Your task to perform on an android device: Empty the shopping cart on costco.com. Add acer predator to the cart on costco.com, then select checkout. Image 0: 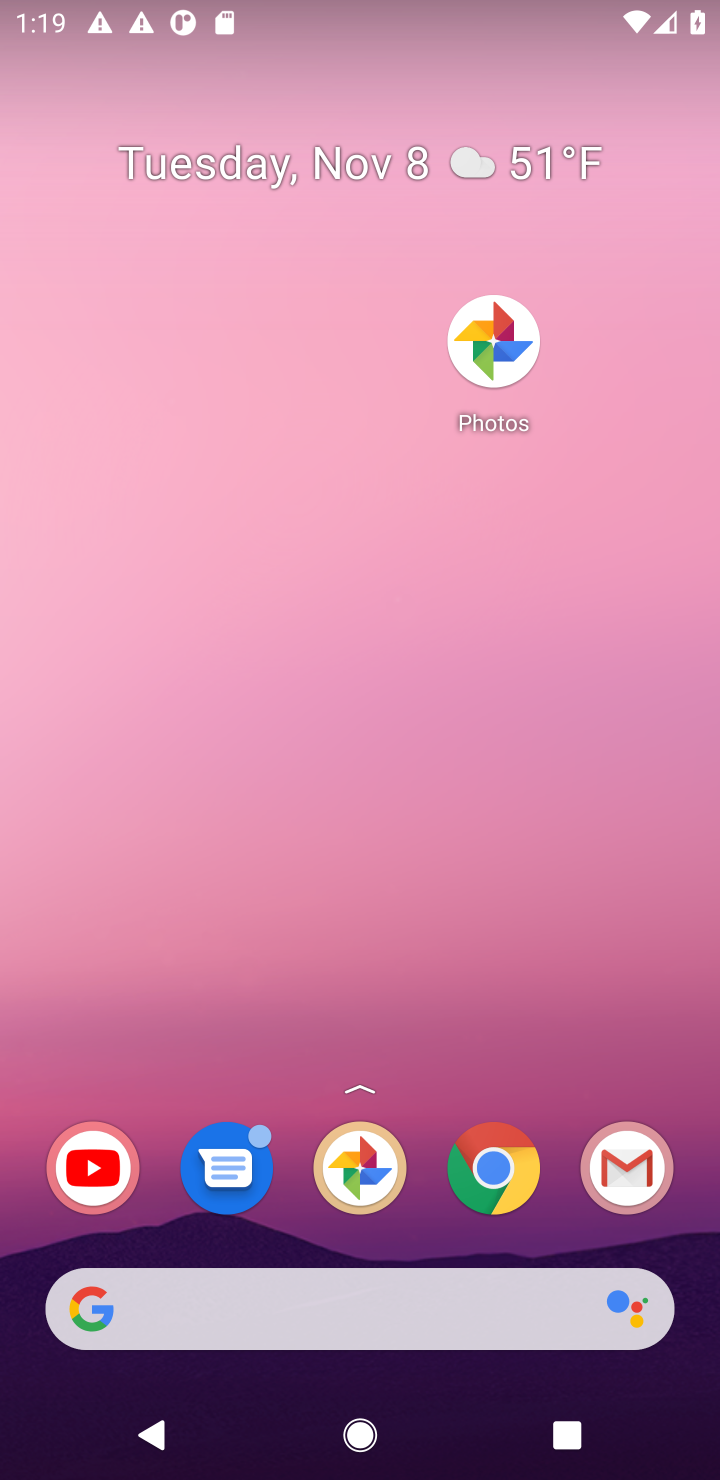
Step 0: drag from (322, 960) to (640, 23)
Your task to perform on an android device: Empty the shopping cart on costco.com. Add acer predator to the cart on costco.com, then select checkout. Image 1: 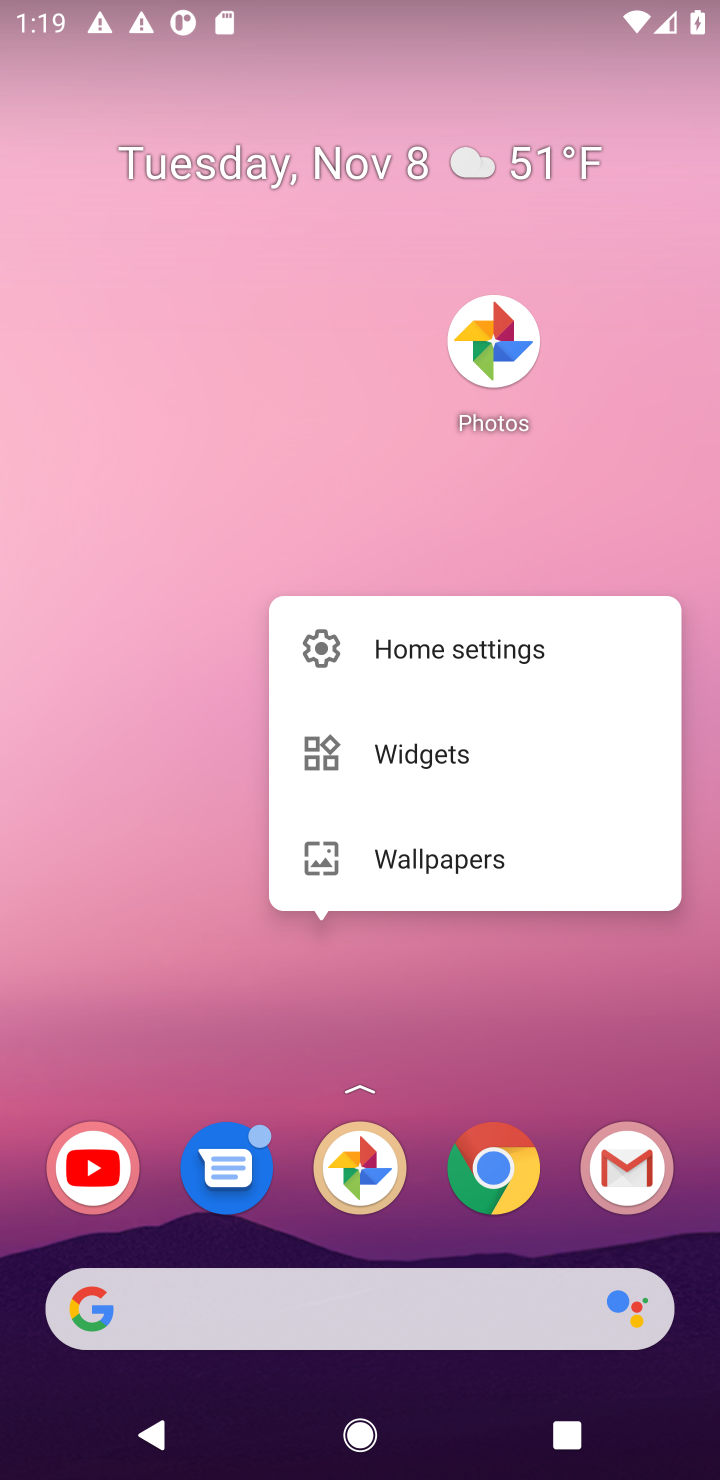
Step 1: click (286, 482)
Your task to perform on an android device: Empty the shopping cart on costco.com. Add acer predator to the cart on costco.com, then select checkout. Image 2: 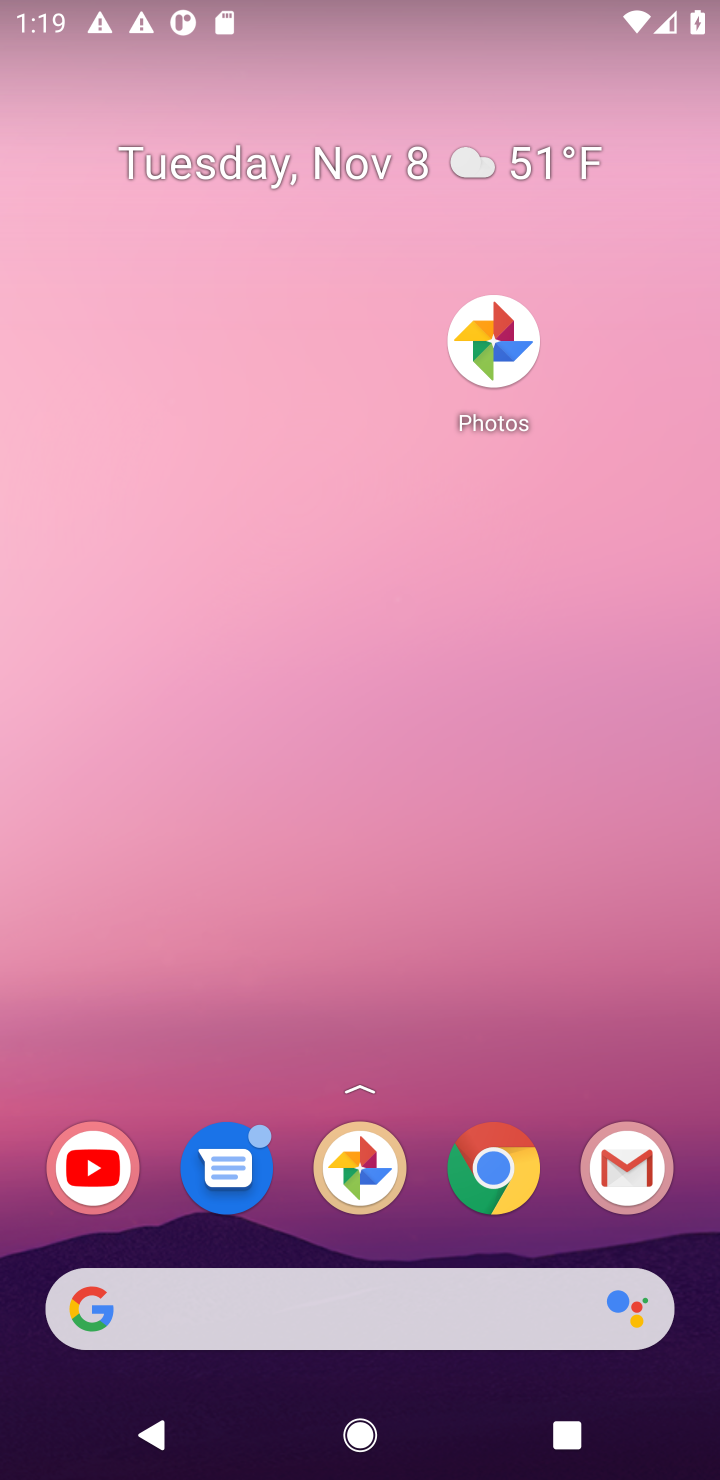
Step 2: drag from (375, 800) to (408, 227)
Your task to perform on an android device: Empty the shopping cart on costco.com. Add acer predator to the cart on costco.com, then select checkout. Image 3: 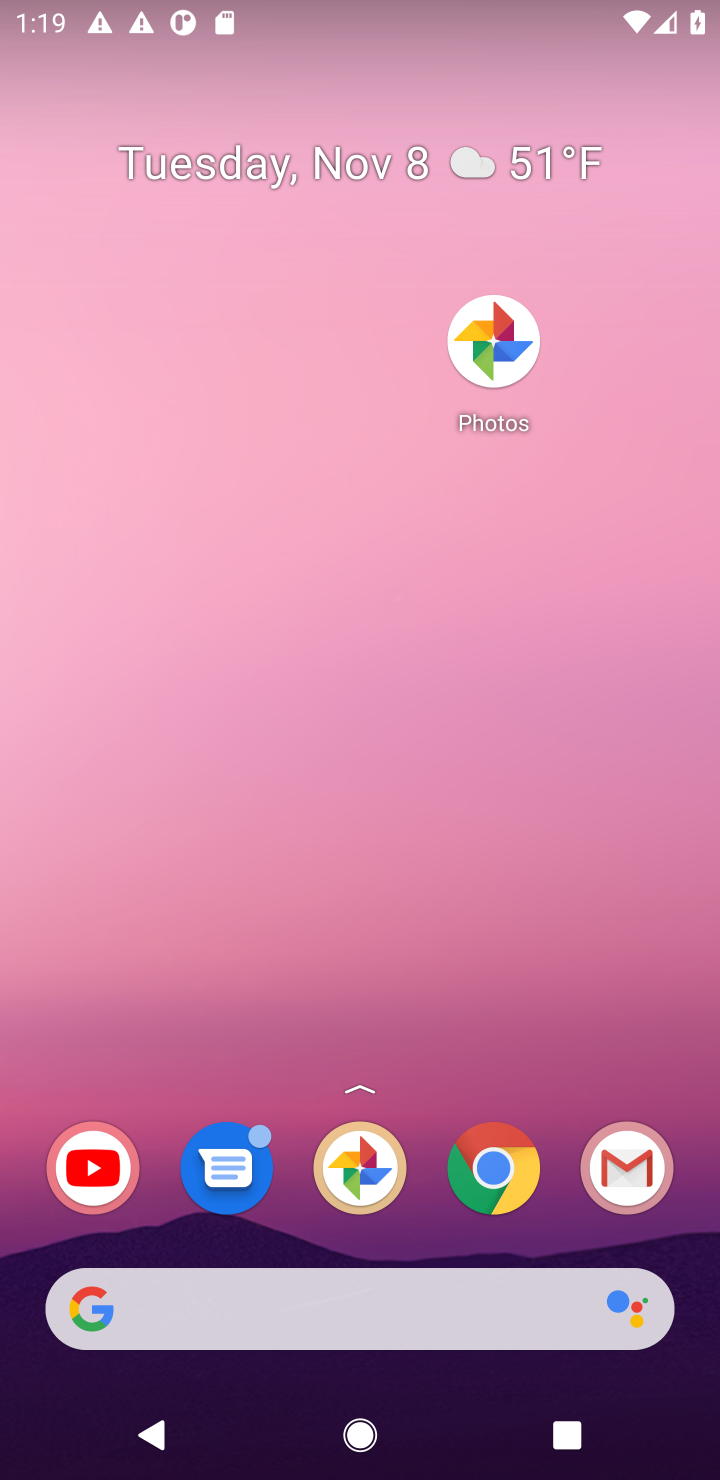
Step 3: drag from (458, 1021) to (522, 647)
Your task to perform on an android device: Empty the shopping cart on costco.com. Add acer predator to the cart on costco.com, then select checkout. Image 4: 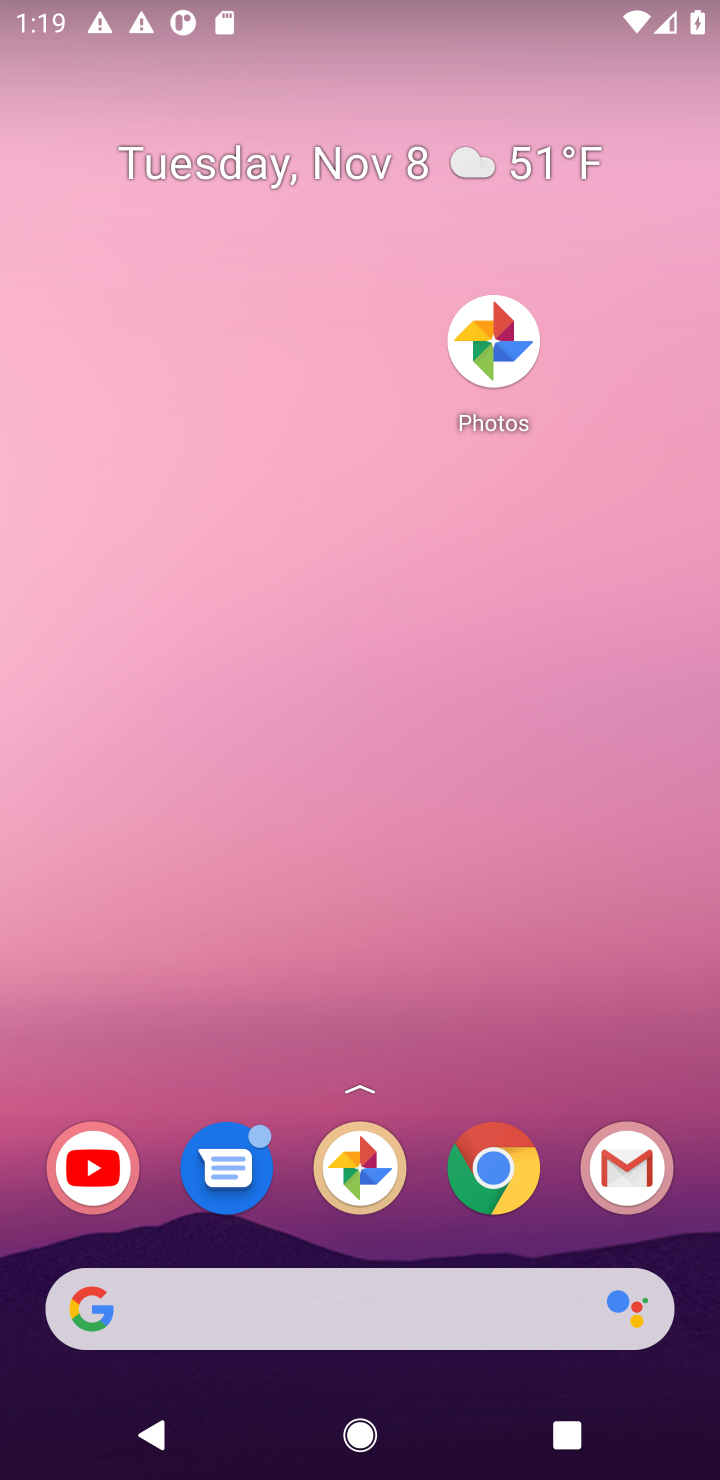
Step 4: drag from (373, 1163) to (492, 198)
Your task to perform on an android device: Empty the shopping cart on costco.com. Add acer predator to the cart on costco.com, then select checkout. Image 5: 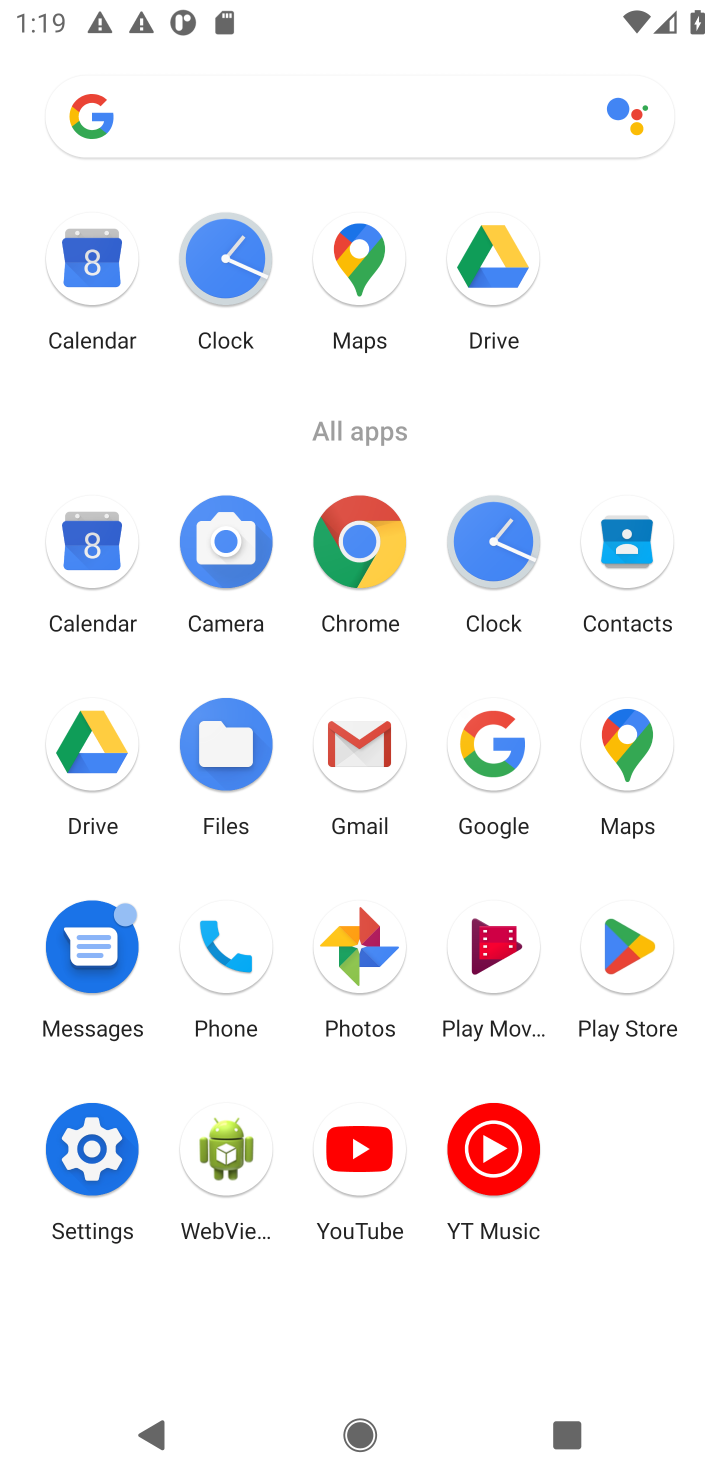
Step 5: click (362, 541)
Your task to perform on an android device: Empty the shopping cart on costco.com. Add acer predator to the cart on costco.com, then select checkout. Image 6: 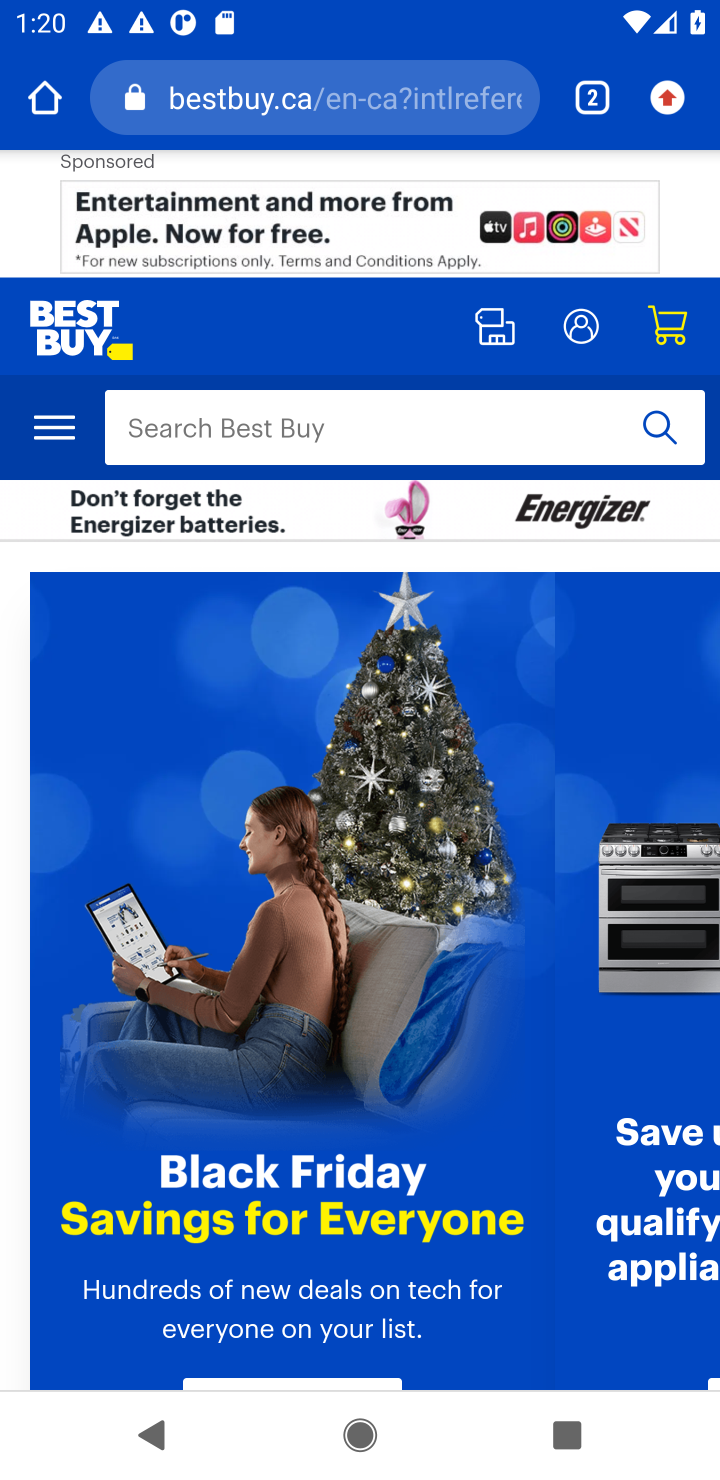
Step 6: click (313, 404)
Your task to perform on an android device: Empty the shopping cart on costco.com. Add acer predator to the cart on costco.com, then select checkout. Image 7: 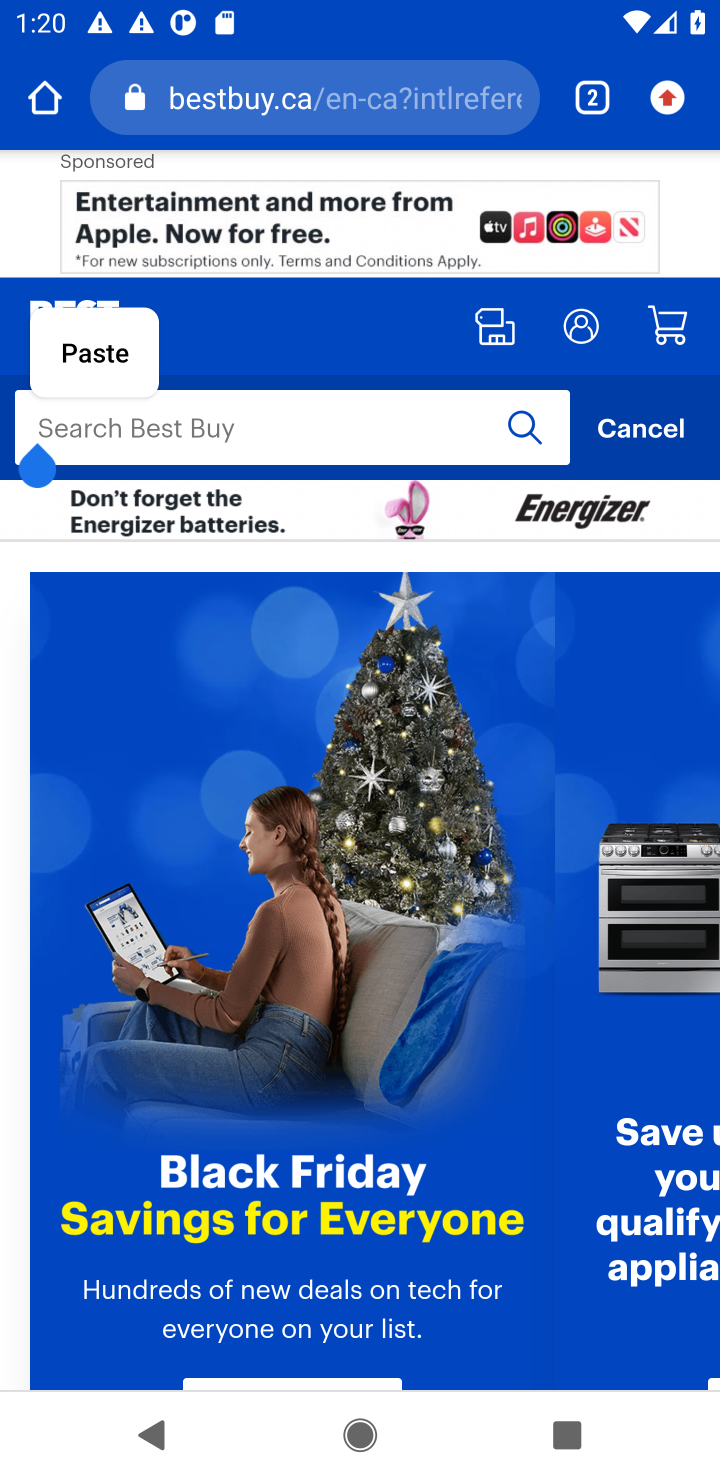
Step 7: click (667, 335)
Your task to perform on an android device: Empty the shopping cart on costco.com. Add acer predator to the cart on costco.com, then select checkout. Image 8: 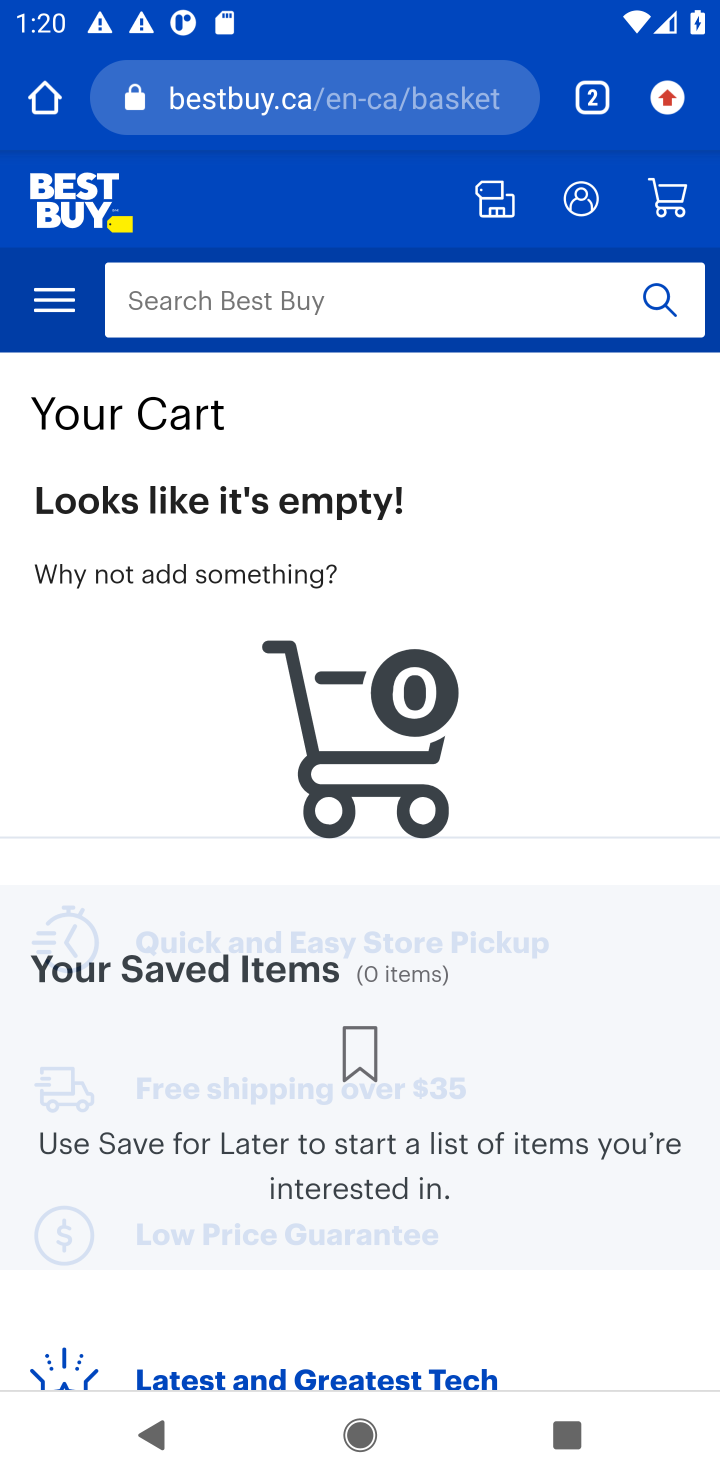
Step 8: click (357, 281)
Your task to perform on an android device: Empty the shopping cart on costco.com. Add acer predator to the cart on costco.com, then select checkout. Image 9: 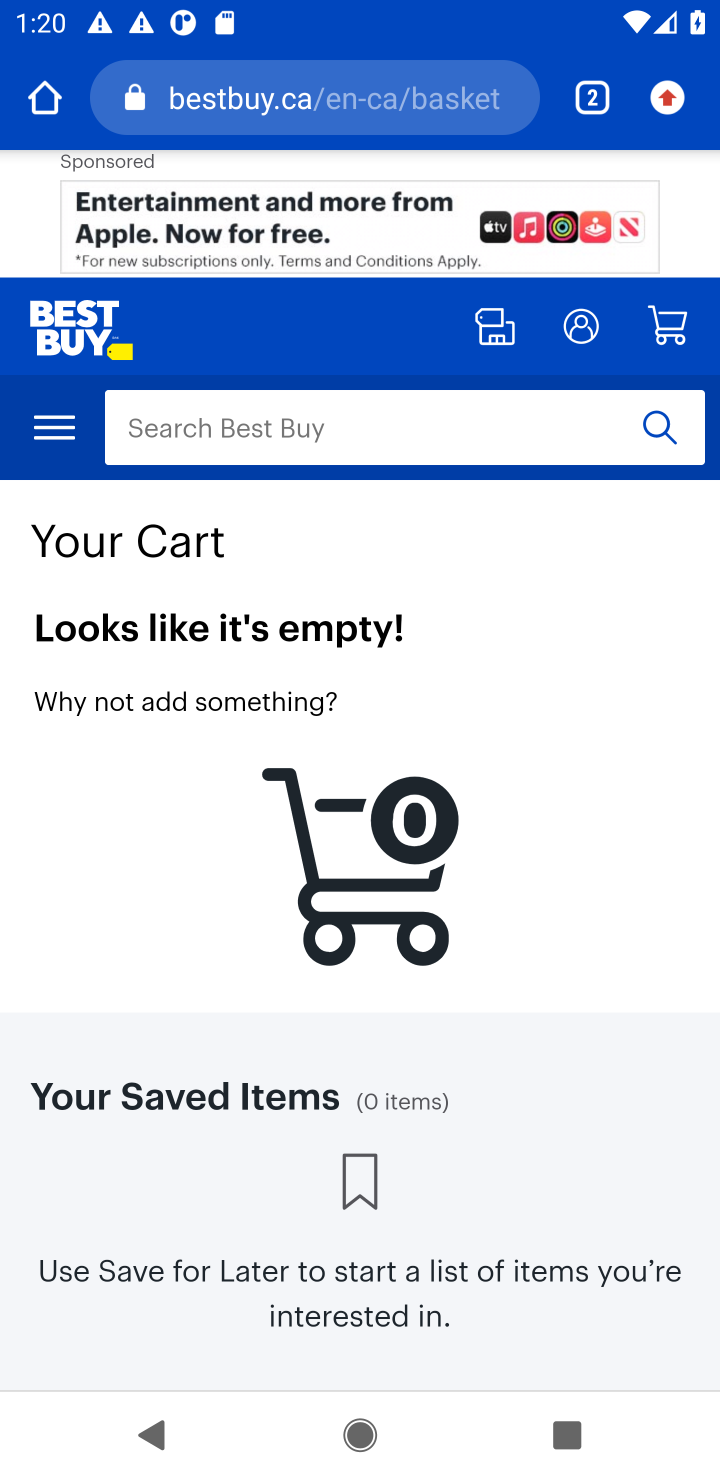
Step 9: click (286, 449)
Your task to perform on an android device: Empty the shopping cart on costco.com. Add acer predator to the cart on costco.com, then select checkout. Image 10: 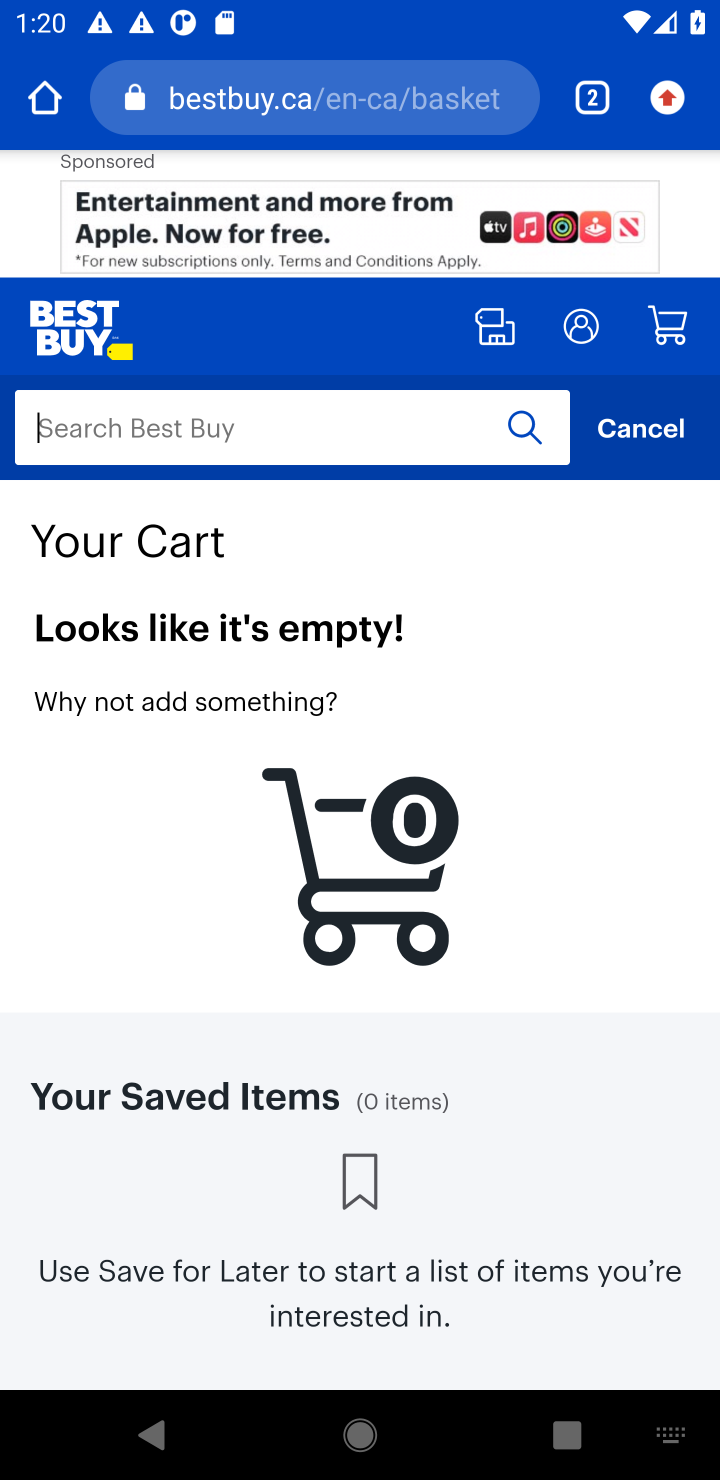
Step 10: type "acer predator"
Your task to perform on an android device: Empty the shopping cart on costco.com. Add acer predator to the cart on costco.com, then select checkout. Image 11: 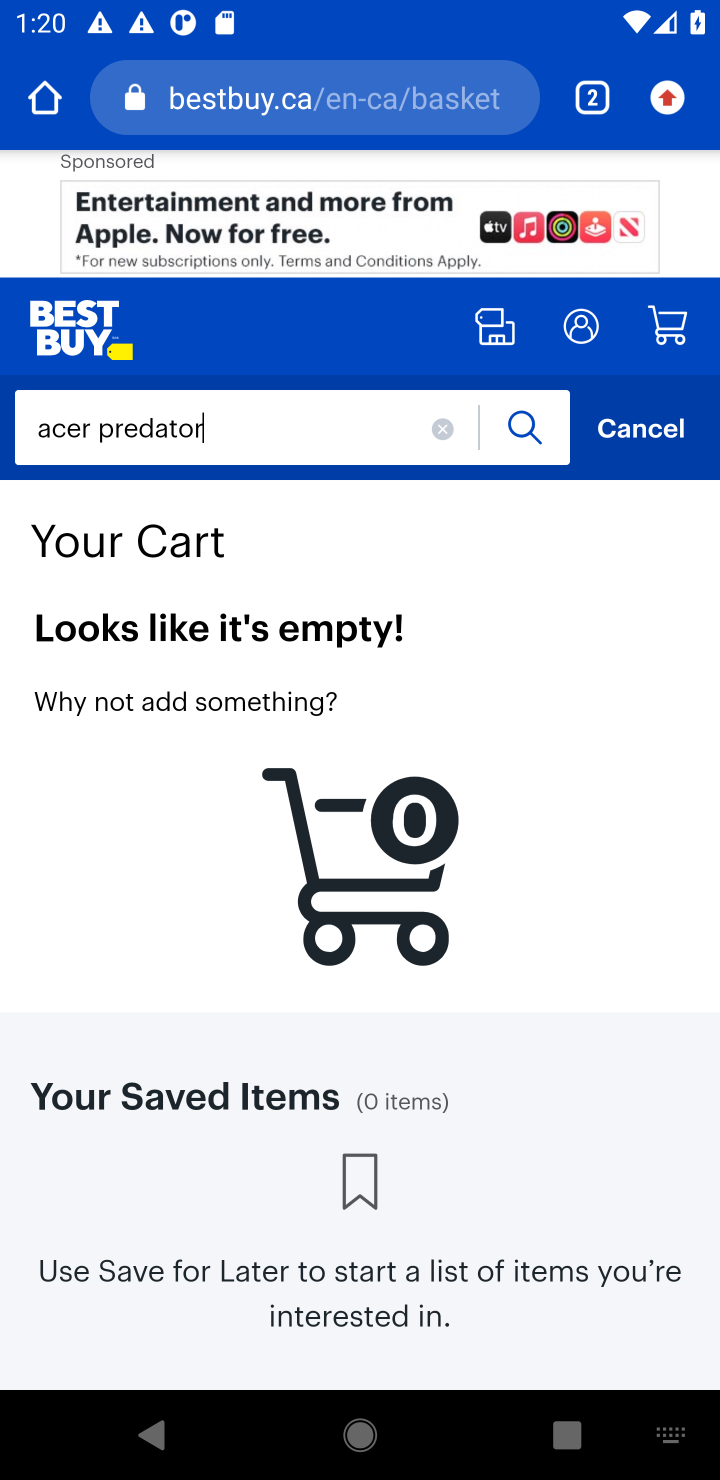
Step 11: press enter
Your task to perform on an android device: Empty the shopping cart on costco.com. Add acer predator to the cart on costco.com, then select checkout. Image 12: 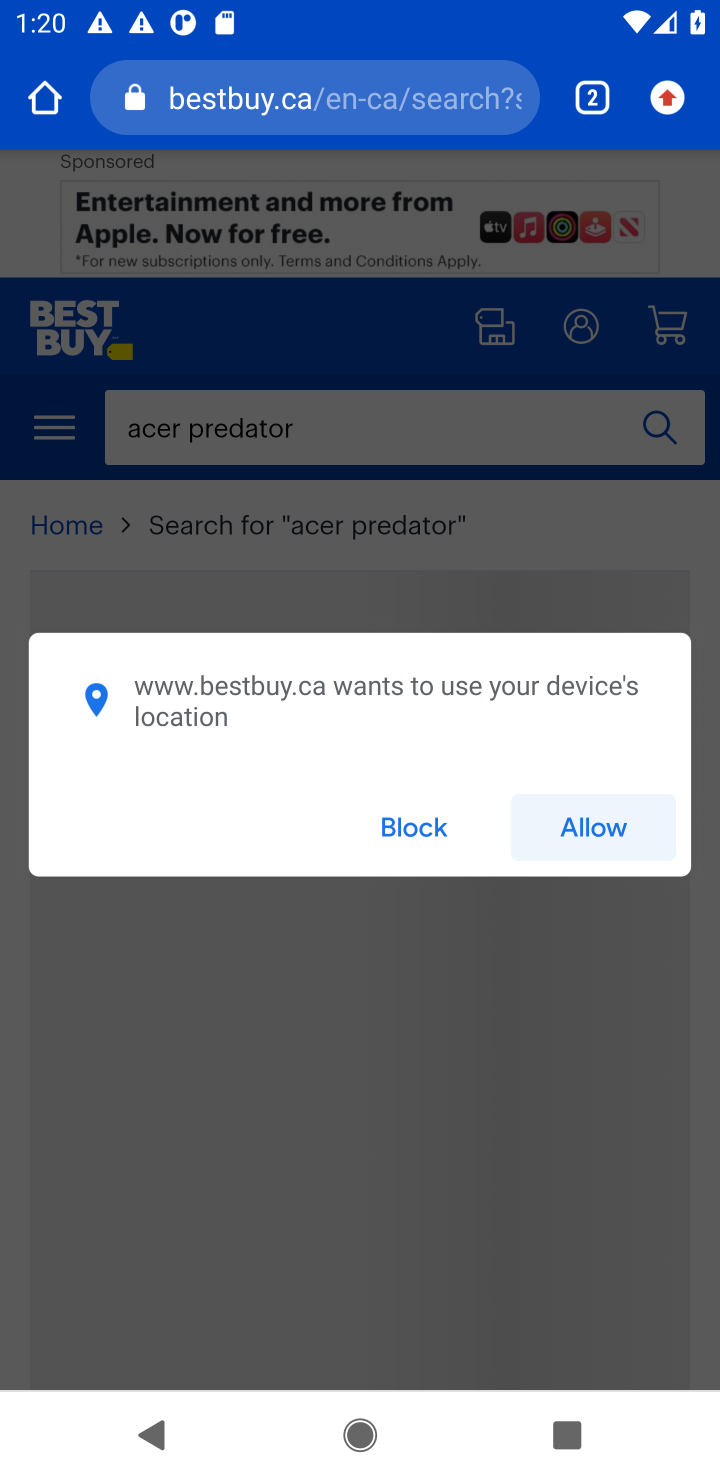
Step 12: click (569, 836)
Your task to perform on an android device: Empty the shopping cart on costco.com. Add acer predator to the cart on costco.com, then select checkout. Image 13: 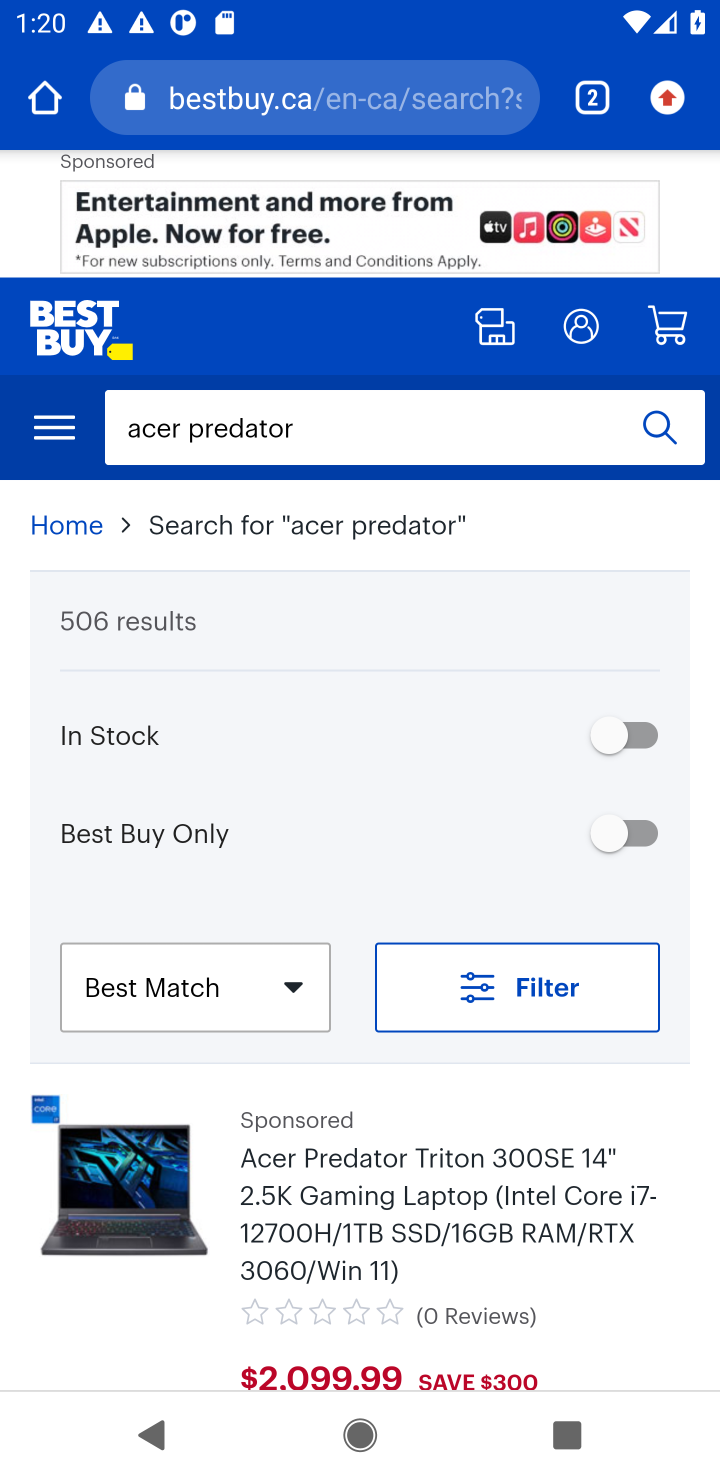
Step 13: drag from (292, 1292) to (421, 688)
Your task to perform on an android device: Empty the shopping cart on costco.com. Add acer predator to the cart on costco.com, then select checkout. Image 14: 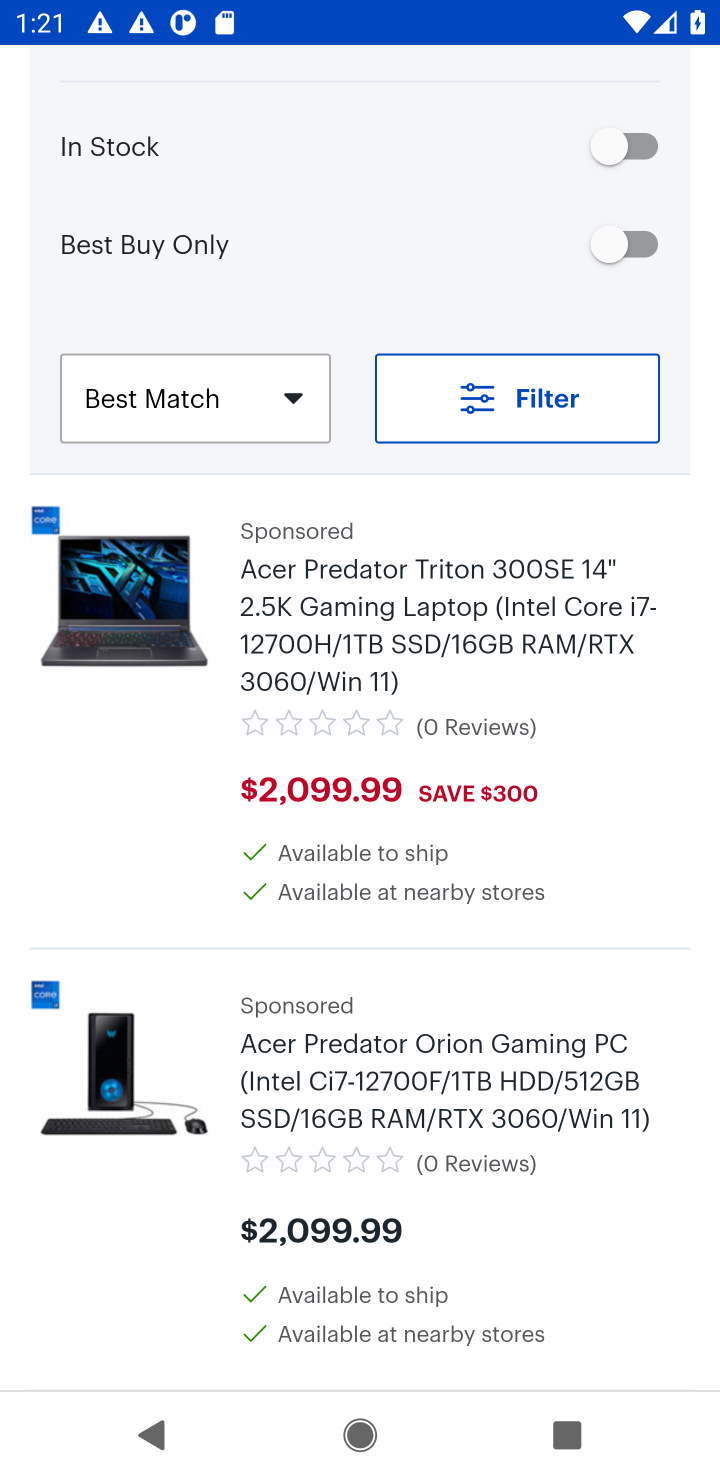
Step 14: click (510, 630)
Your task to perform on an android device: Empty the shopping cart on costco.com. Add acer predator to the cart on costco.com, then select checkout. Image 15: 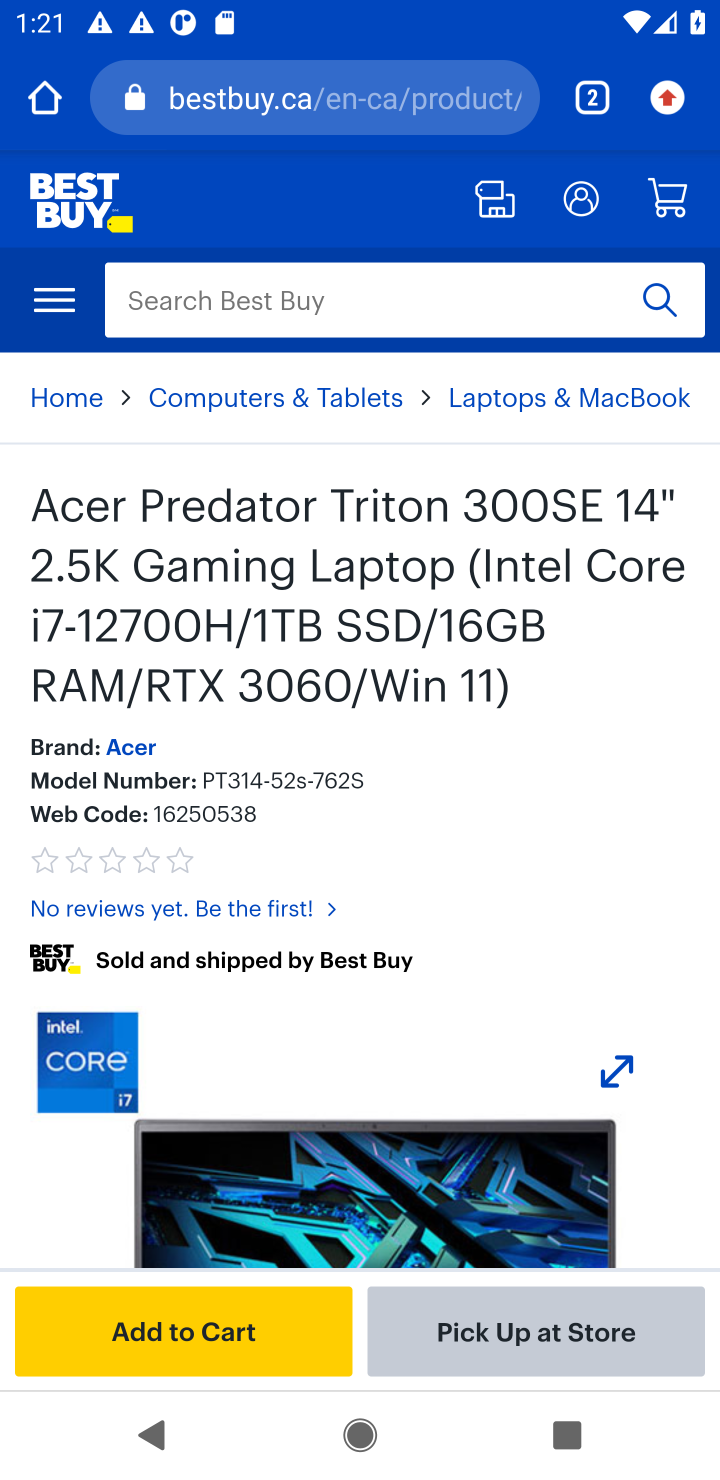
Step 15: click (217, 1347)
Your task to perform on an android device: Empty the shopping cart on costco.com. Add acer predator to the cart on costco.com, then select checkout. Image 16: 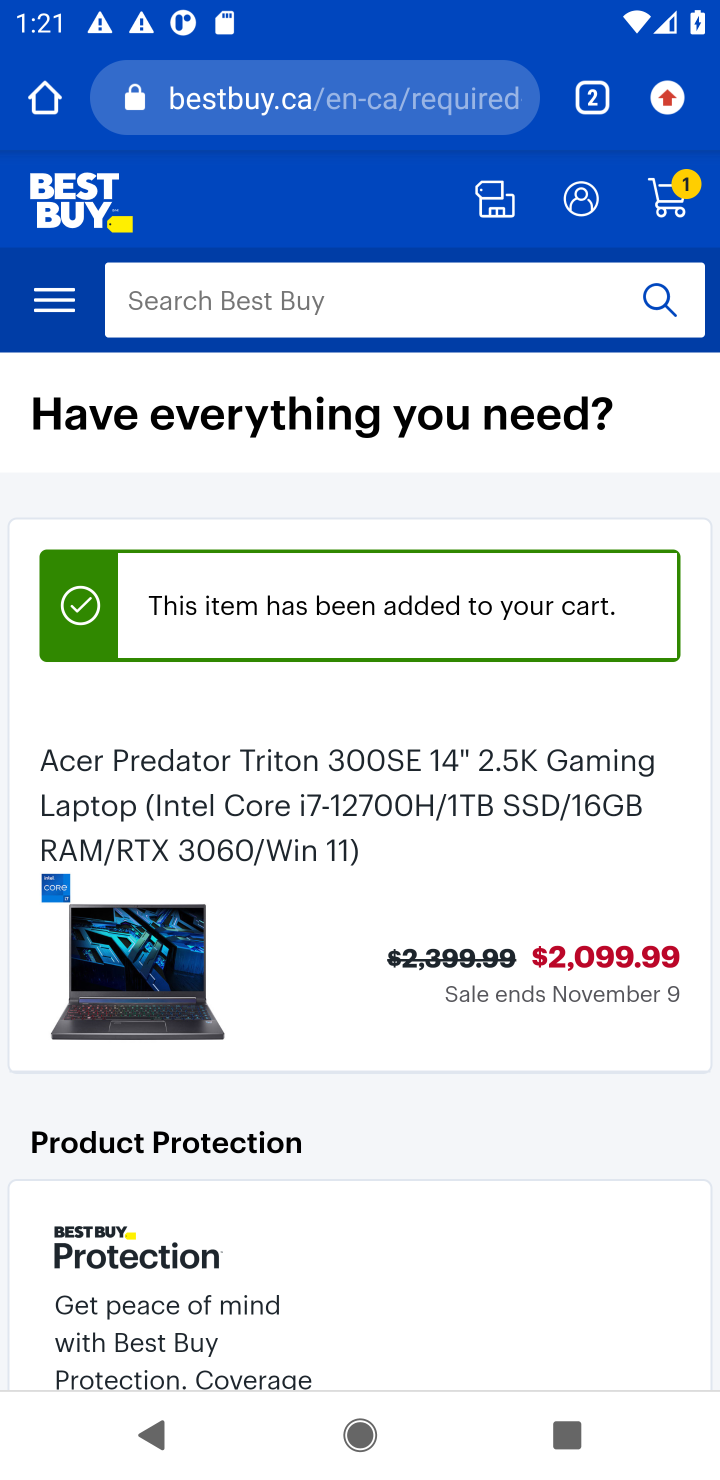
Step 16: click (669, 180)
Your task to perform on an android device: Empty the shopping cart on costco.com. Add acer predator to the cart on costco.com, then select checkout. Image 17: 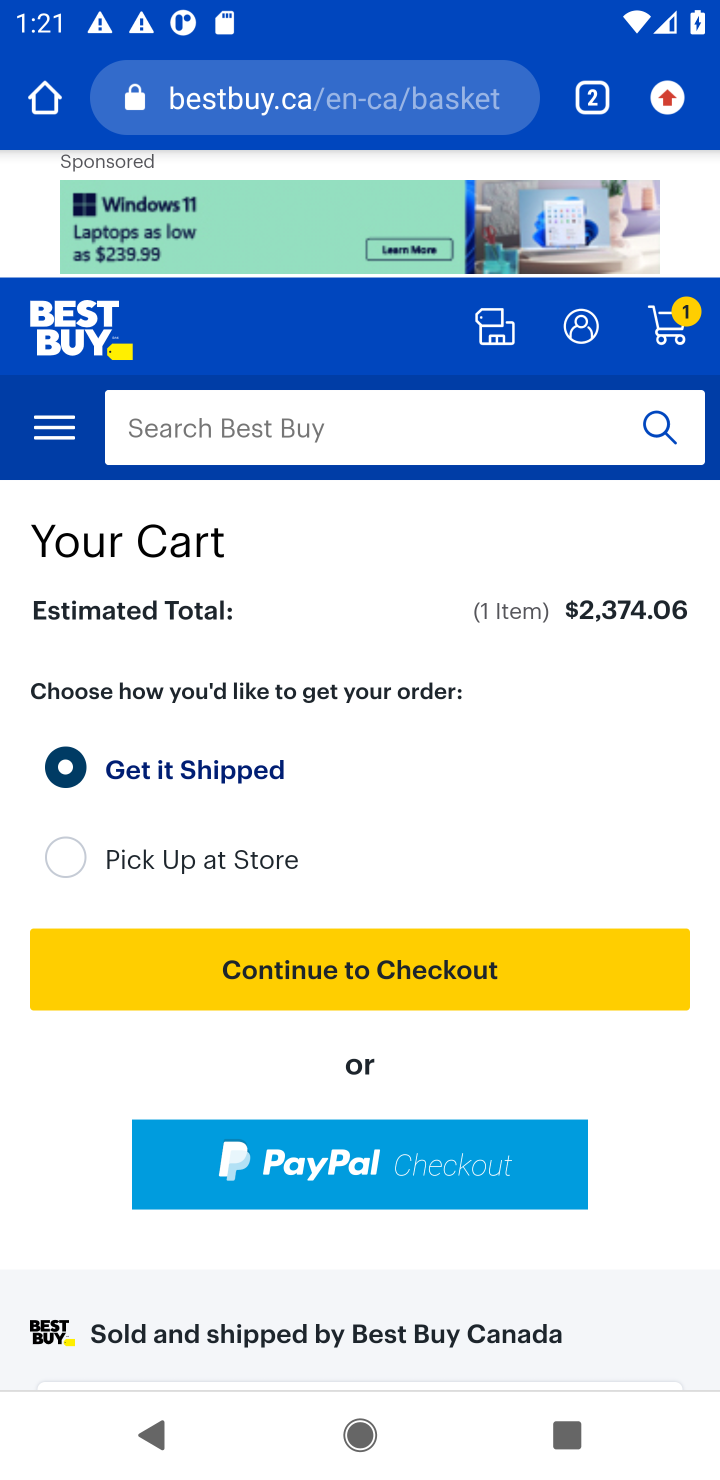
Step 17: click (324, 976)
Your task to perform on an android device: Empty the shopping cart on costco.com. Add acer predator to the cart on costco.com, then select checkout. Image 18: 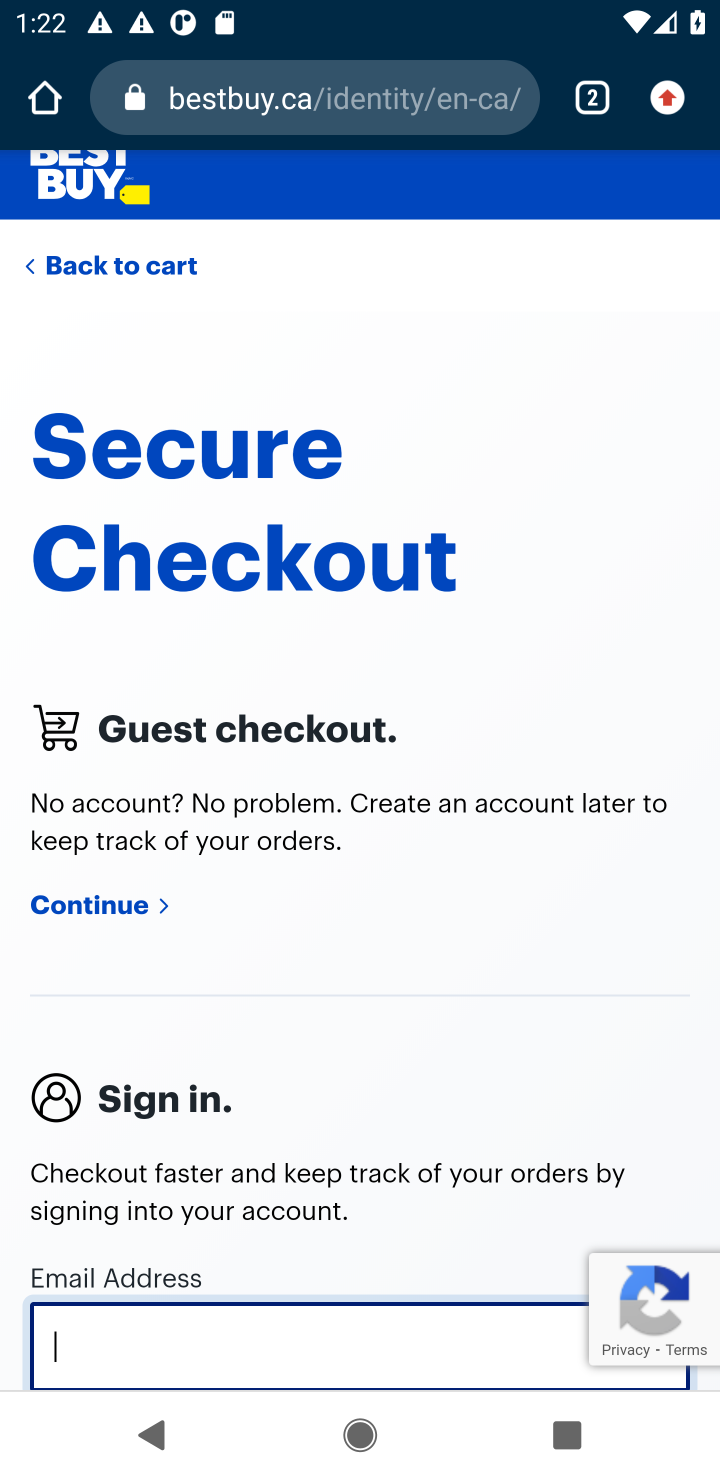
Step 18: task complete